Your task to perform on an android device: open a bookmark in the chrome app Image 0: 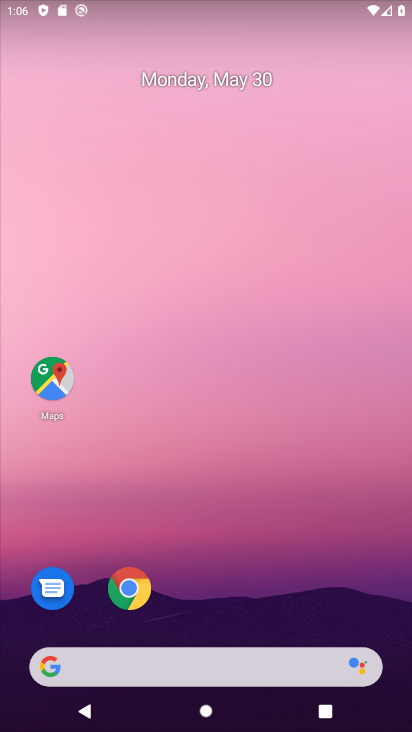
Step 0: click (129, 588)
Your task to perform on an android device: open a bookmark in the chrome app Image 1: 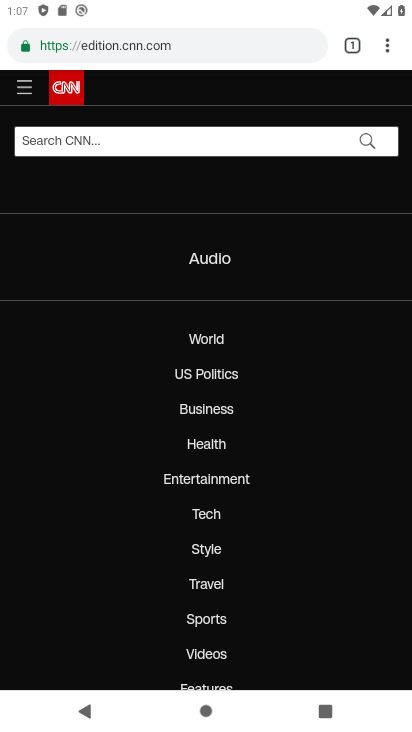
Step 1: click (385, 48)
Your task to perform on an android device: open a bookmark in the chrome app Image 2: 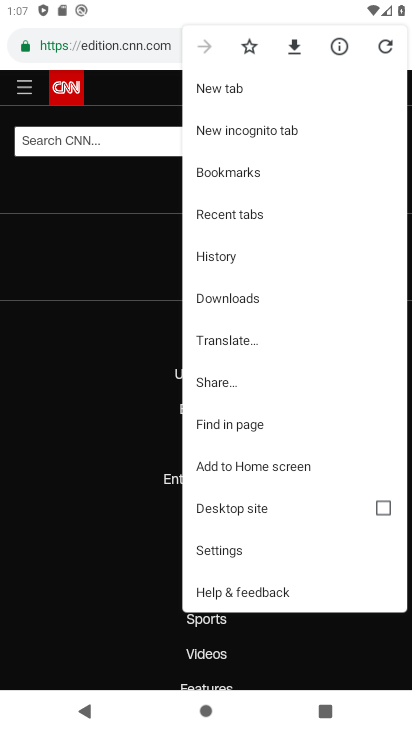
Step 2: click (226, 166)
Your task to perform on an android device: open a bookmark in the chrome app Image 3: 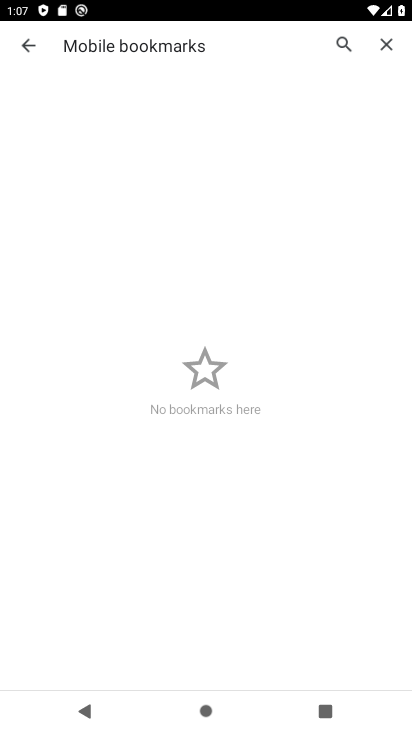
Step 3: task complete